Your task to perform on an android device: toggle data saver in the chrome app Image 0: 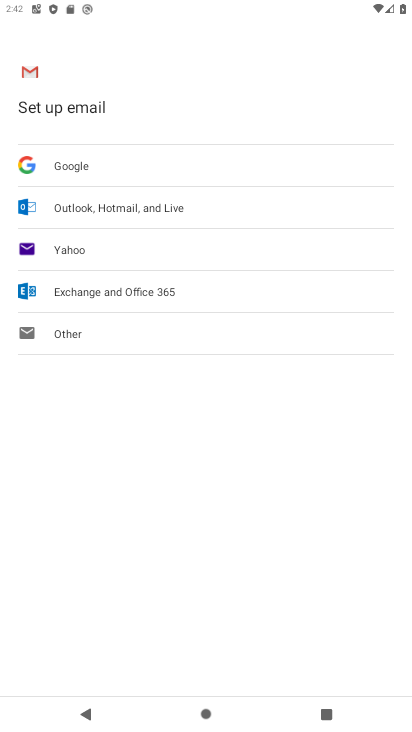
Step 0: press home button
Your task to perform on an android device: toggle data saver in the chrome app Image 1: 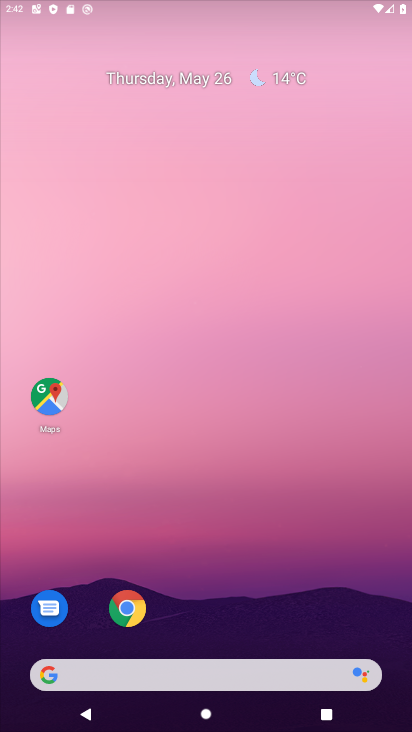
Step 1: drag from (301, 513) to (315, 66)
Your task to perform on an android device: toggle data saver in the chrome app Image 2: 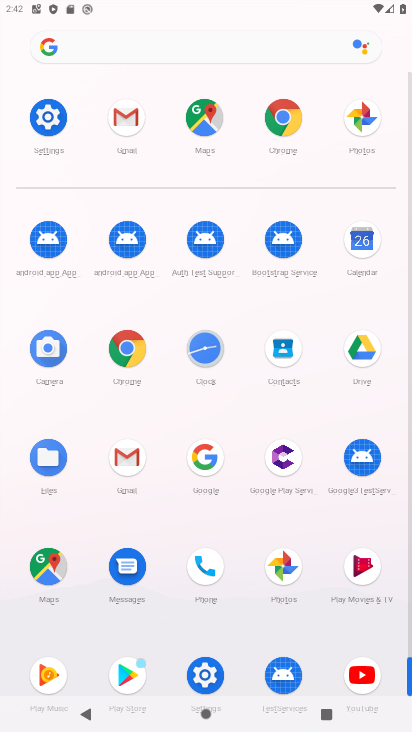
Step 2: click (289, 108)
Your task to perform on an android device: toggle data saver in the chrome app Image 3: 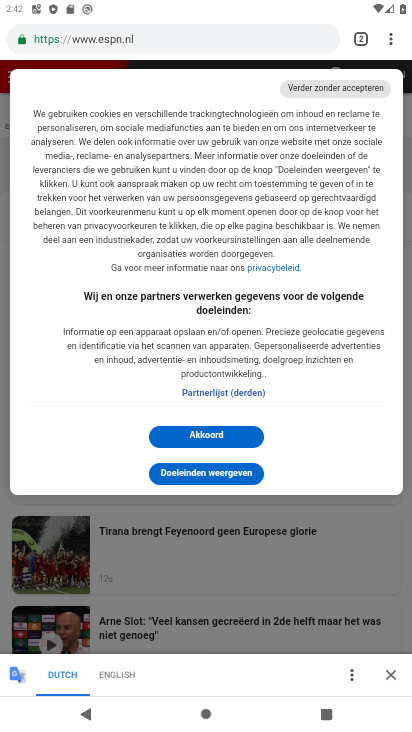
Step 3: drag from (387, 35) to (241, 476)
Your task to perform on an android device: toggle data saver in the chrome app Image 4: 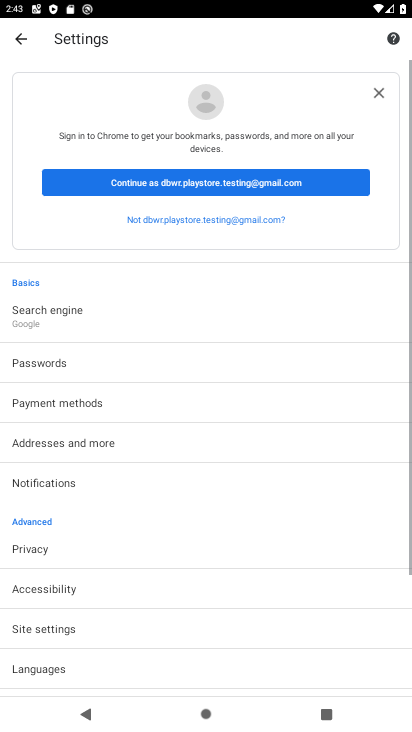
Step 4: drag from (127, 674) to (205, 217)
Your task to perform on an android device: toggle data saver in the chrome app Image 5: 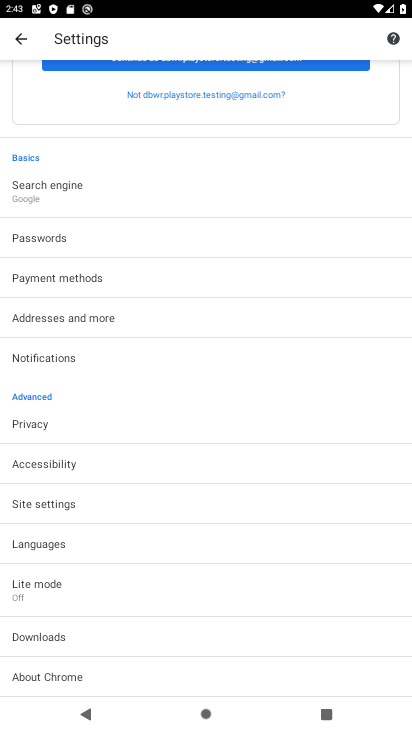
Step 5: click (100, 592)
Your task to perform on an android device: toggle data saver in the chrome app Image 6: 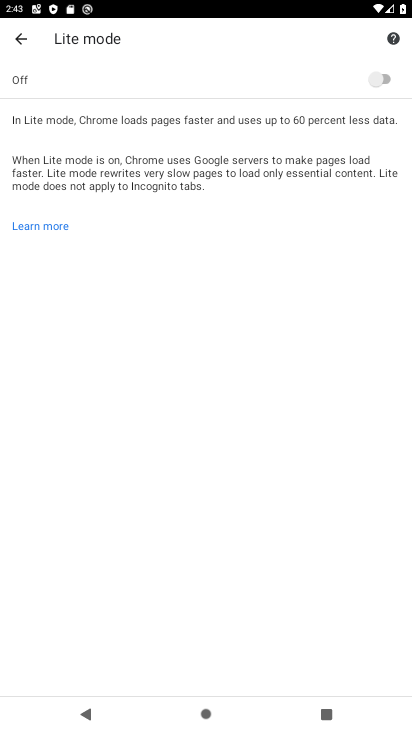
Step 6: click (371, 80)
Your task to perform on an android device: toggle data saver in the chrome app Image 7: 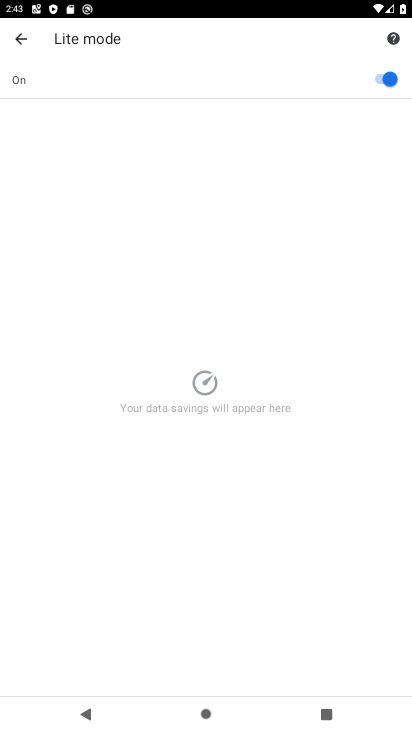
Step 7: task complete